Your task to perform on an android device: Open the Play Movies app and select the watchlist tab. Image 0: 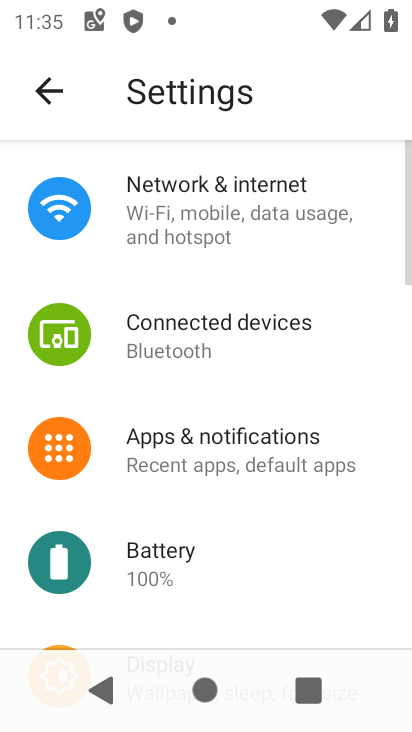
Step 0: press home button
Your task to perform on an android device: Open the Play Movies app and select the watchlist tab. Image 1: 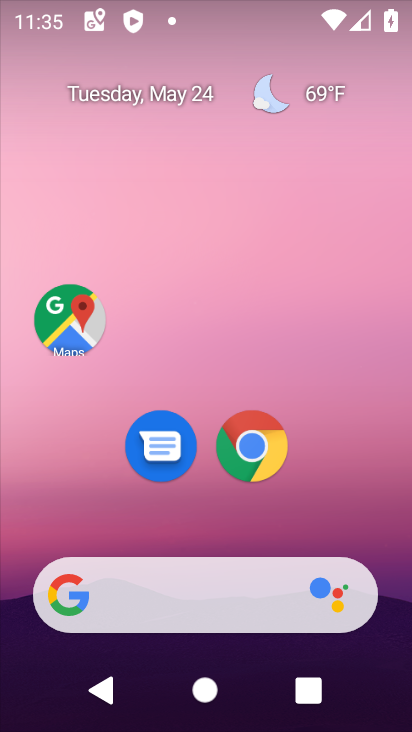
Step 1: drag from (142, 563) to (186, 205)
Your task to perform on an android device: Open the Play Movies app and select the watchlist tab. Image 2: 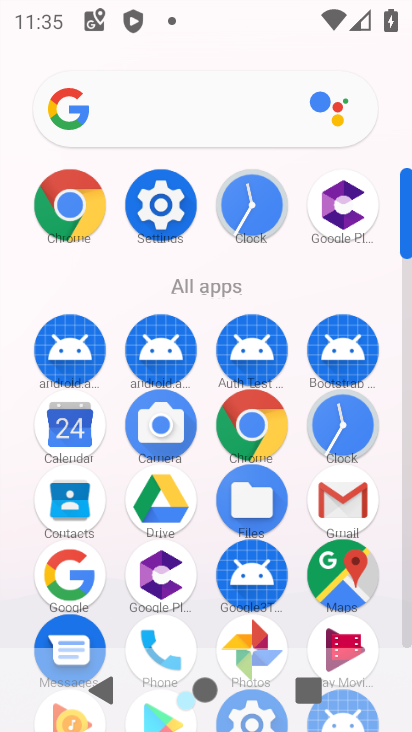
Step 2: click (337, 640)
Your task to perform on an android device: Open the Play Movies app and select the watchlist tab. Image 3: 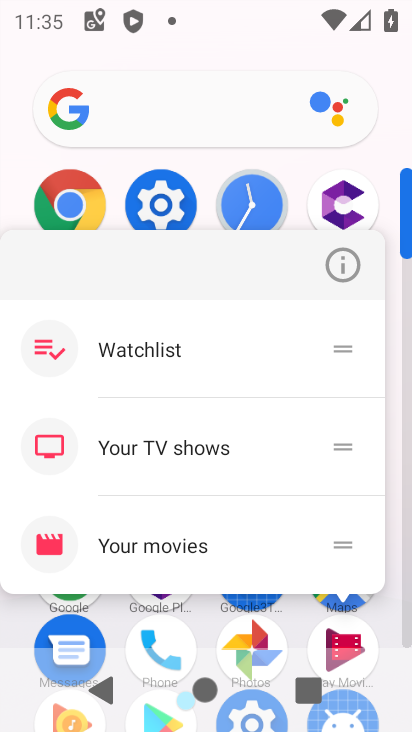
Step 3: click (329, 643)
Your task to perform on an android device: Open the Play Movies app and select the watchlist tab. Image 4: 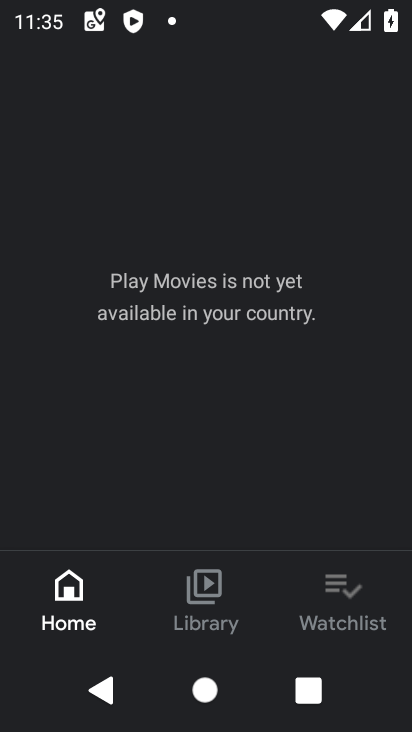
Step 4: click (355, 616)
Your task to perform on an android device: Open the Play Movies app and select the watchlist tab. Image 5: 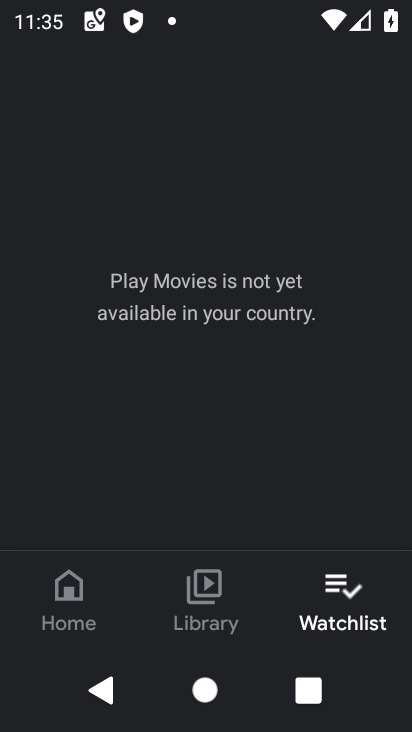
Step 5: task complete